Your task to perform on an android device: search for starred emails in the gmail app Image 0: 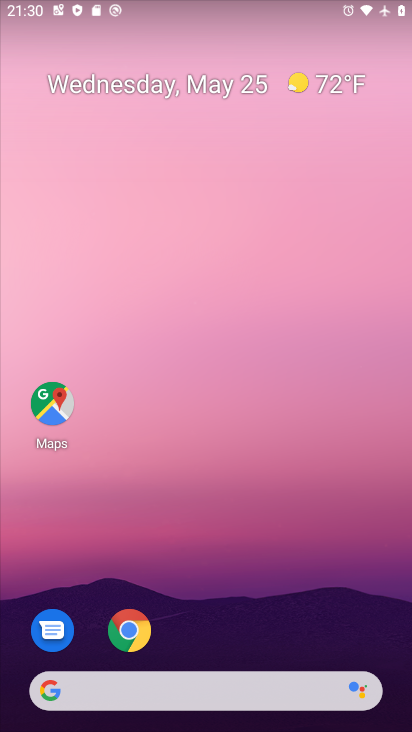
Step 0: drag from (250, 645) to (250, 320)
Your task to perform on an android device: search for starred emails in the gmail app Image 1: 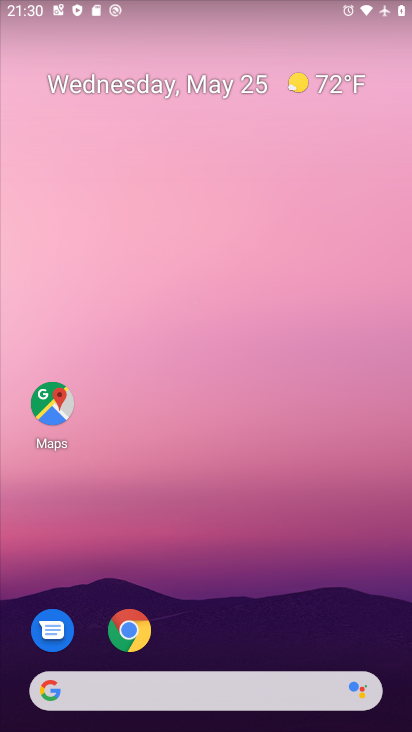
Step 1: drag from (216, 621) to (231, 299)
Your task to perform on an android device: search for starred emails in the gmail app Image 2: 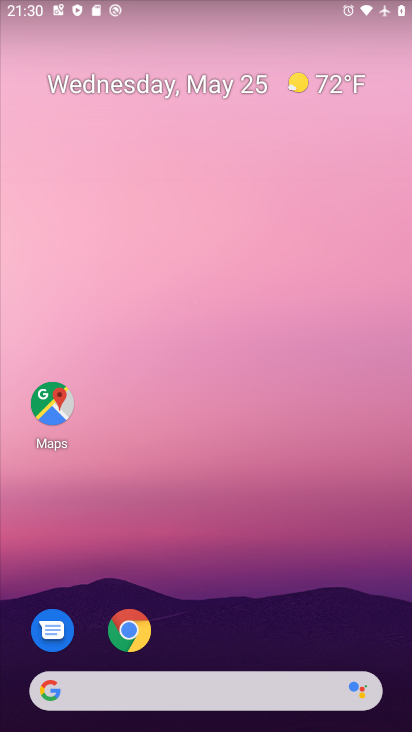
Step 2: drag from (211, 628) to (218, 207)
Your task to perform on an android device: search for starred emails in the gmail app Image 3: 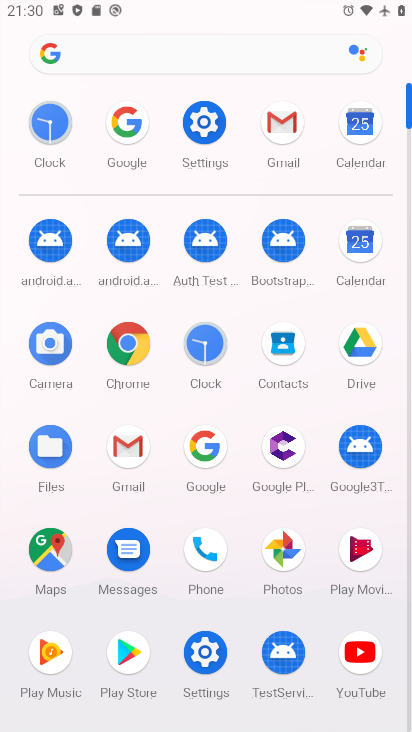
Step 3: click (276, 135)
Your task to perform on an android device: search for starred emails in the gmail app Image 4: 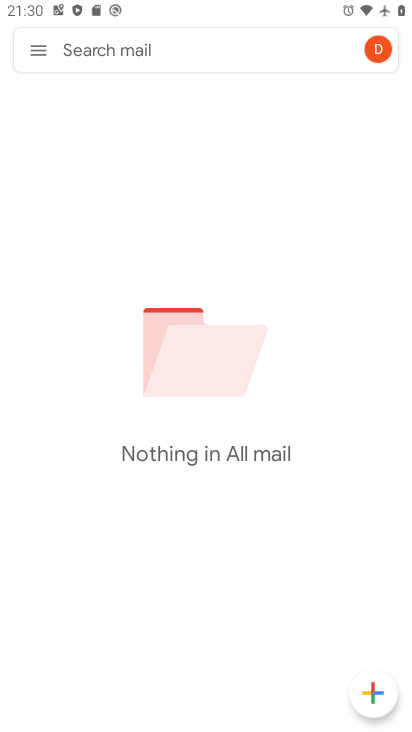
Step 4: click (36, 58)
Your task to perform on an android device: search for starred emails in the gmail app Image 5: 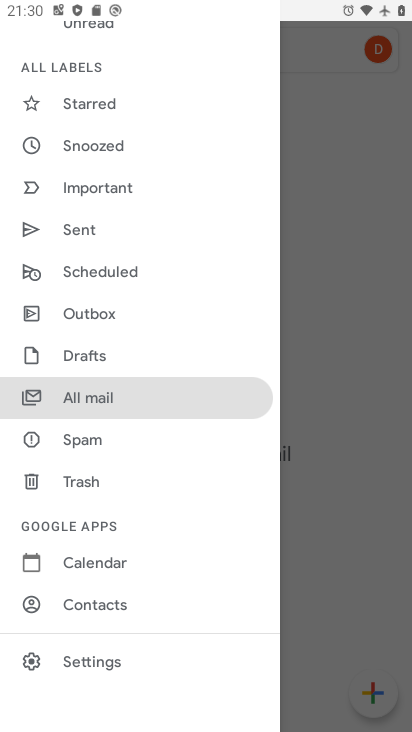
Step 5: click (103, 117)
Your task to perform on an android device: search for starred emails in the gmail app Image 6: 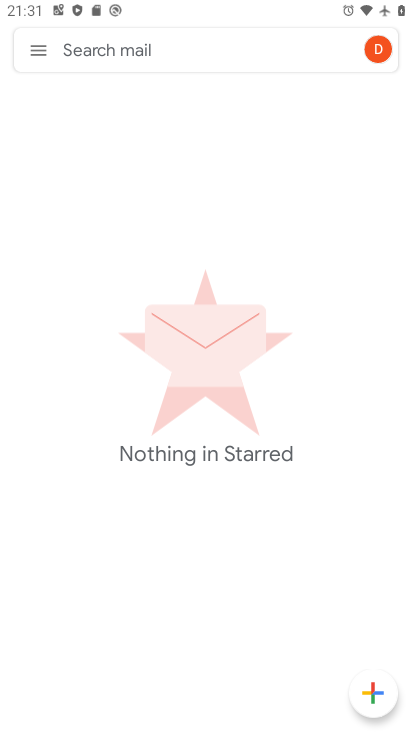
Step 6: task complete